Your task to perform on an android device: Go to internet settings Image 0: 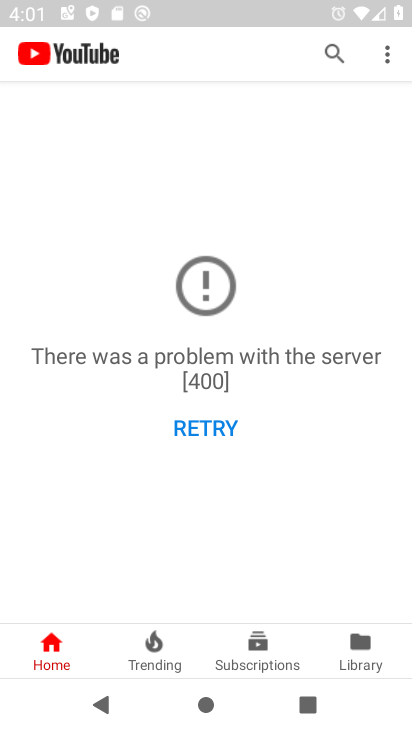
Step 0: press home button
Your task to perform on an android device: Go to internet settings Image 1: 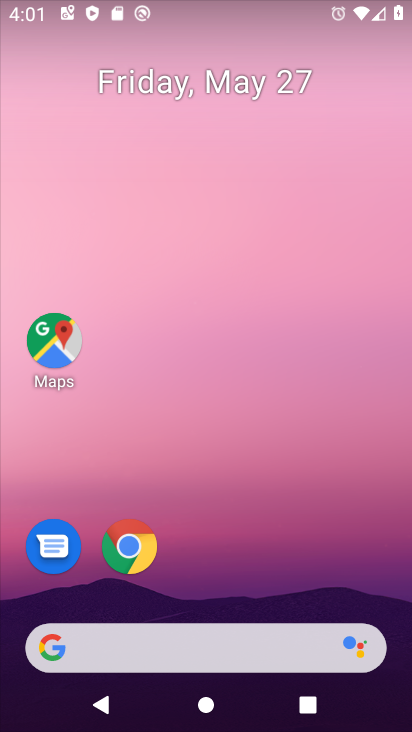
Step 1: drag from (229, 587) to (229, 119)
Your task to perform on an android device: Go to internet settings Image 2: 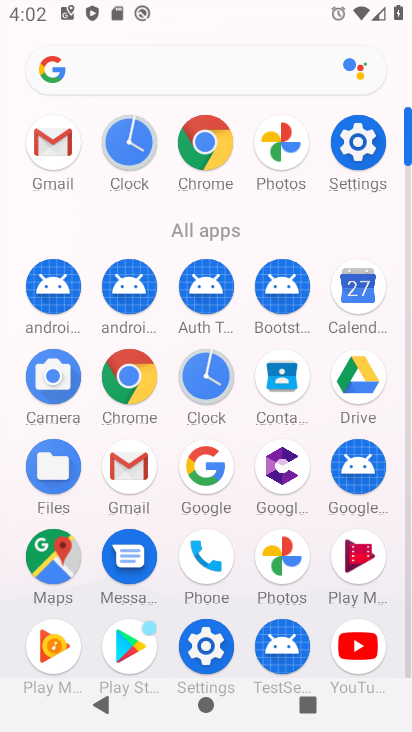
Step 2: click (357, 138)
Your task to perform on an android device: Go to internet settings Image 3: 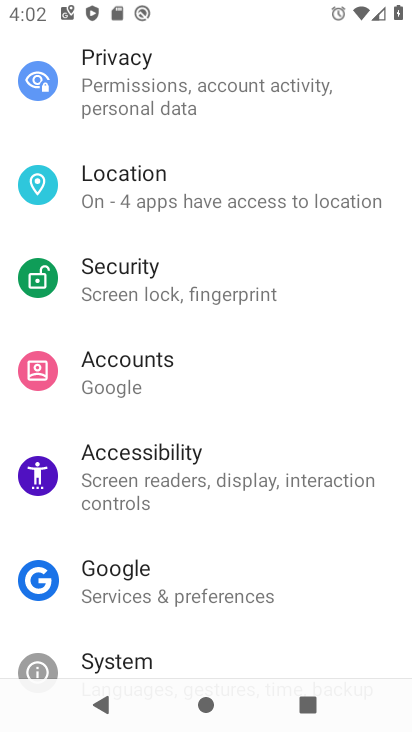
Step 3: drag from (203, 106) to (222, 595)
Your task to perform on an android device: Go to internet settings Image 4: 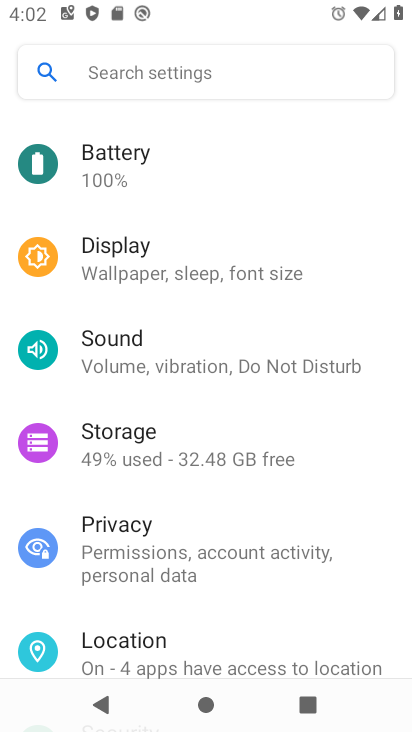
Step 4: drag from (224, 201) to (231, 541)
Your task to perform on an android device: Go to internet settings Image 5: 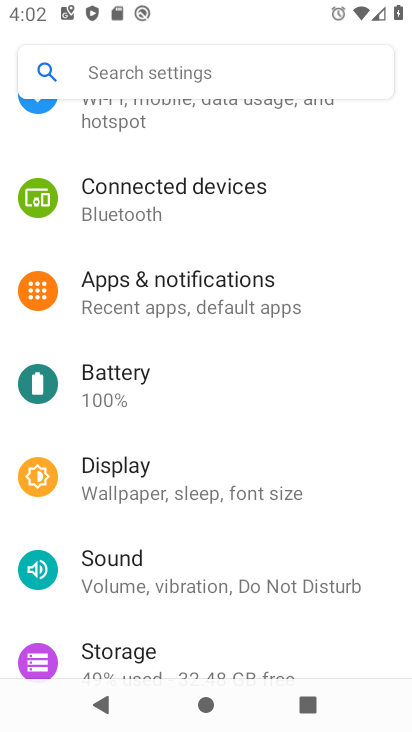
Step 5: drag from (166, 131) to (133, 695)
Your task to perform on an android device: Go to internet settings Image 6: 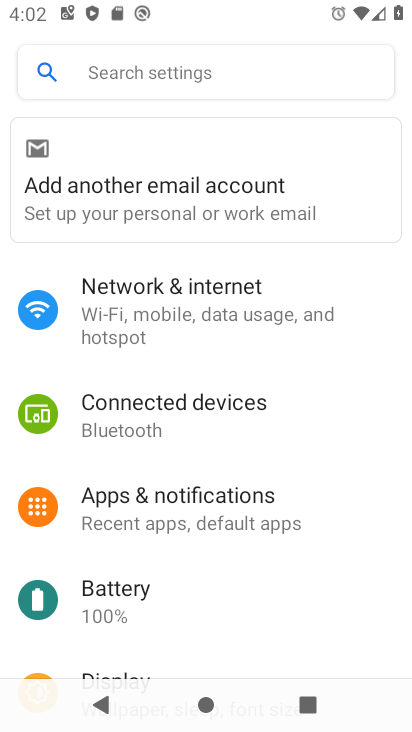
Step 6: click (168, 319)
Your task to perform on an android device: Go to internet settings Image 7: 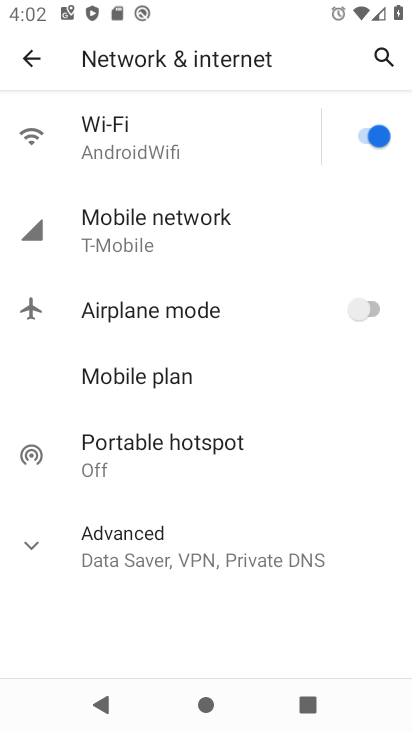
Step 7: click (31, 538)
Your task to perform on an android device: Go to internet settings Image 8: 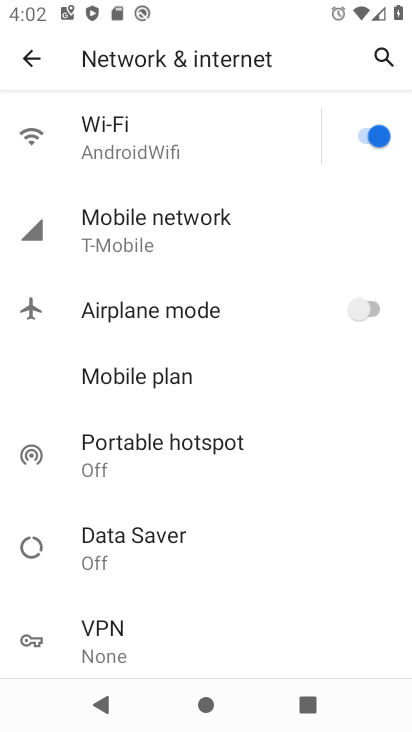
Step 8: task complete